Your task to perform on an android device: Is it going to rain today? Image 0: 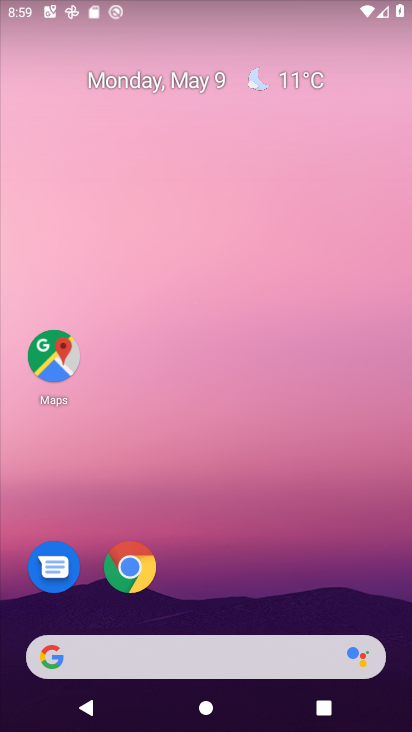
Step 0: click (269, 77)
Your task to perform on an android device: Is it going to rain today? Image 1: 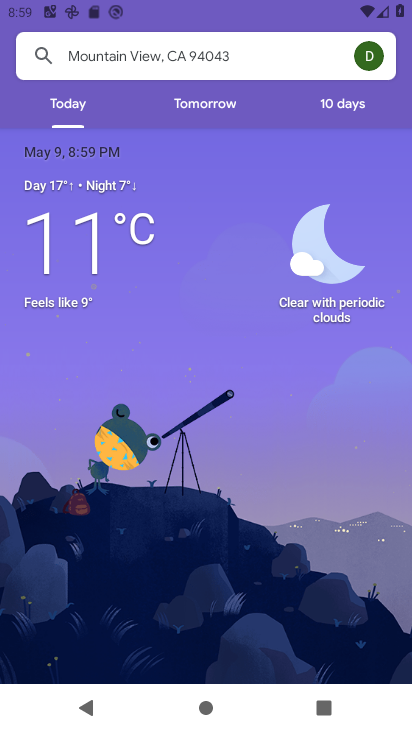
Step 1: task complete